Your task to perform on an android device: turn on data saver in the chrome app Image 0: 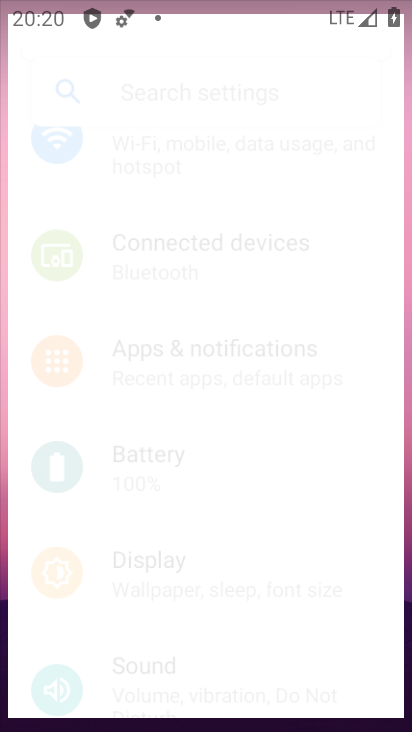
Step 0: drag from (220, 605) to (177, 190)
Your task to perform on an android device: turn on data saver in the chrome app Image 1: 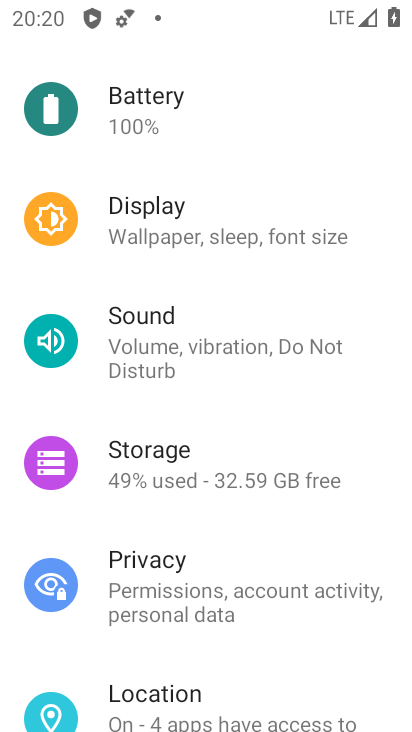
Step 1: drag from (182, 150) to (326, 699)
Your task to perform on an android device: turn on data saver in the chrome app Image 2: 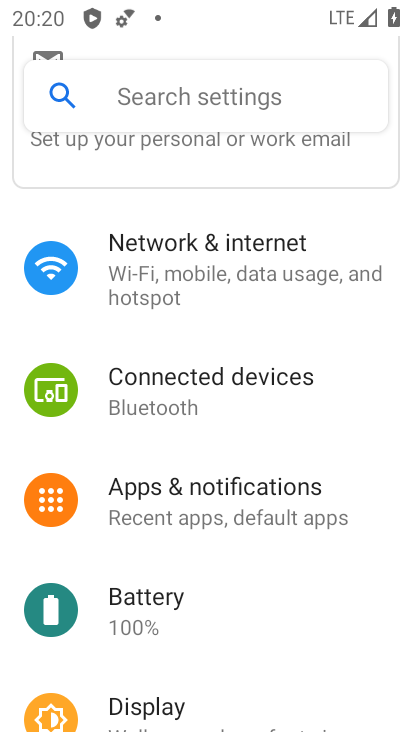
Step 2: press home button
Your task to perform on an android device: turn on data saver in the chrome app Image 3: 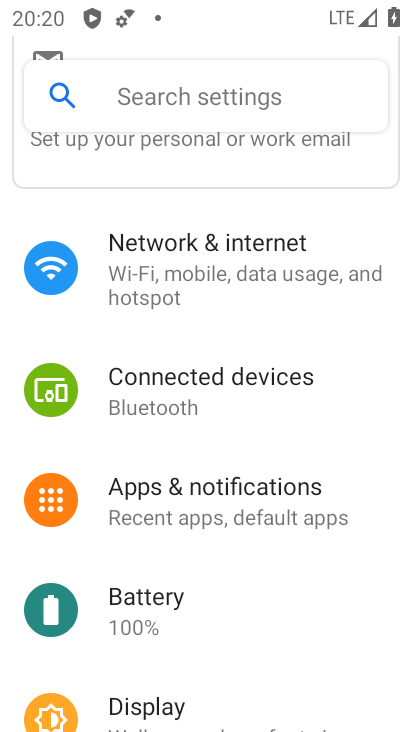
Step 3: drag from (326, 699) to (396, 564)
Your task to perform on an android device: turn on data saver in the chrome app Image 4: 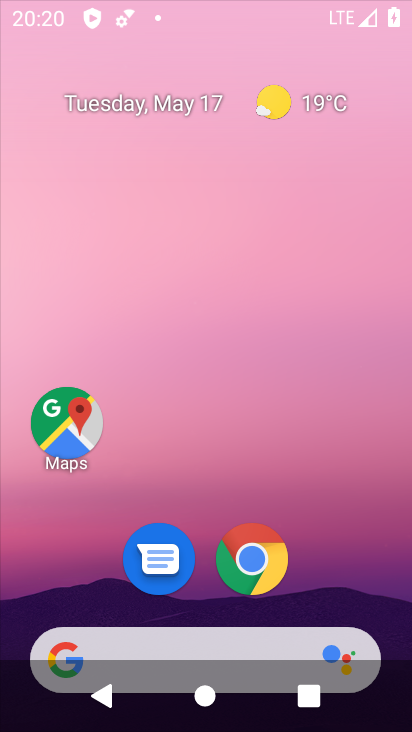
Step 4: drag from (206, 619) to (201, 146)
Your task to perform on an android device: turn on data saver in the chrome app Image 5: 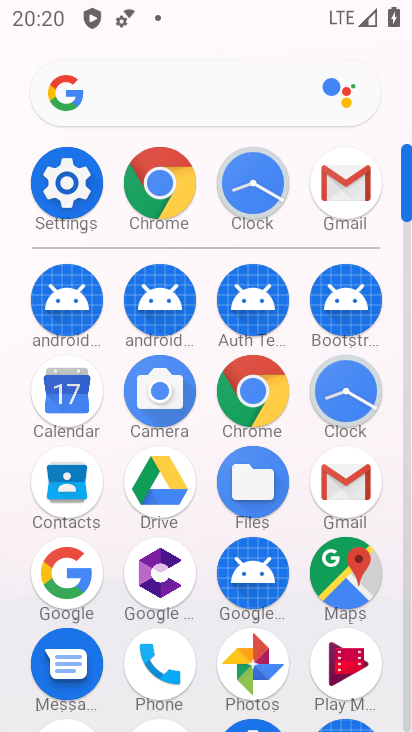
Step 5: click (170, 190)
Your task to perform on an android device: turn on data saver in the chrome app Image 6: 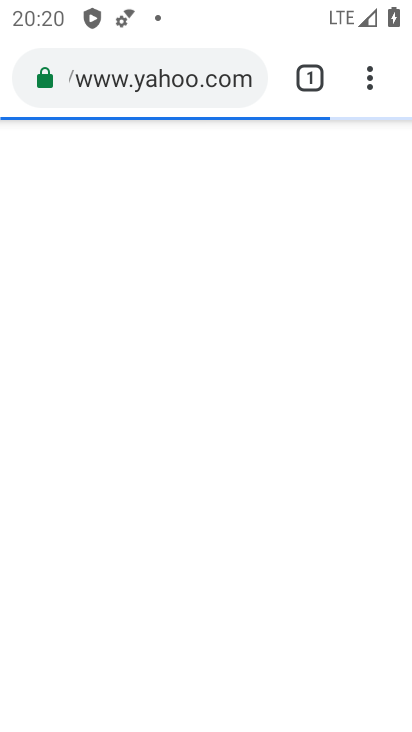
Step 6: click (365, 69)
Your task to perform on an android device: turn on data saver in the chrome app Image 7: 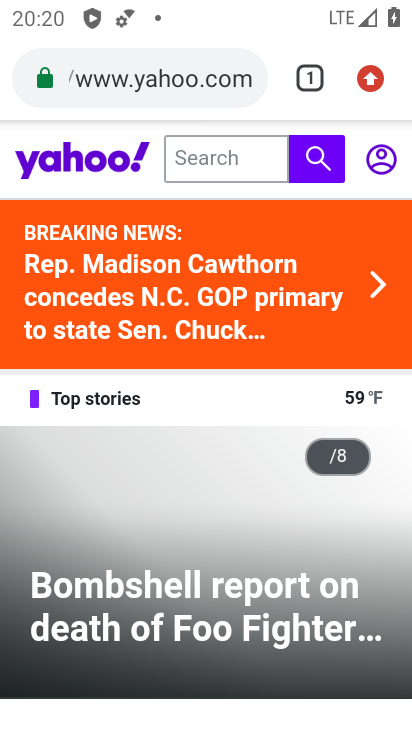
Step 7: click (365, 76)
Your task to perform on an android device: turn on data saver in the chrome app Image 8: 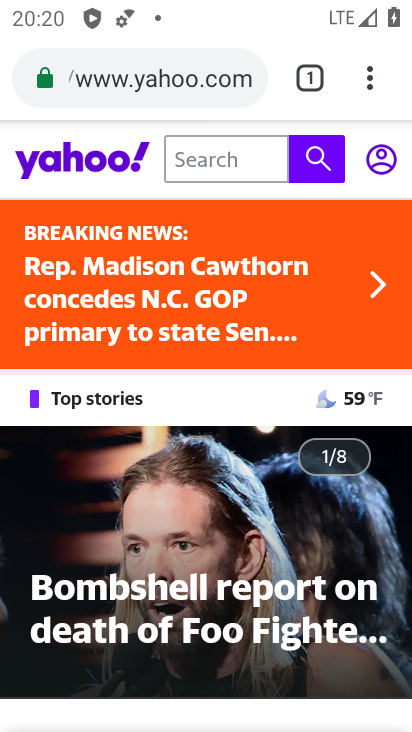
Step 8: click (365, 78)
Your task to perform on an android device: turn on data saver in the chrome app Image 9: 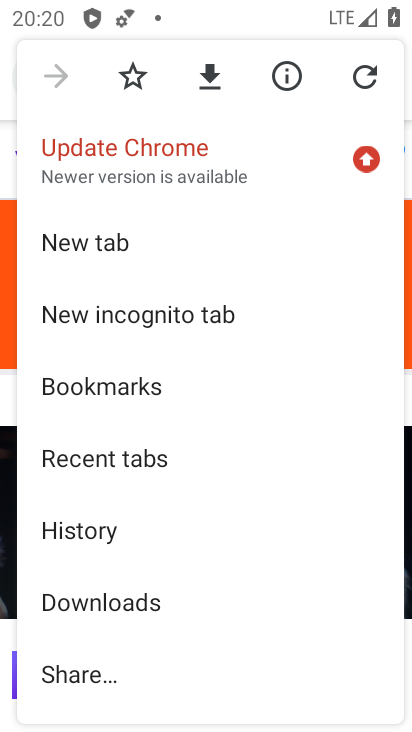
Step 9: drag from (186, 586) to (234, 176)
Your task to perform on an android device: turn on data saver in the chrome app Image 10: 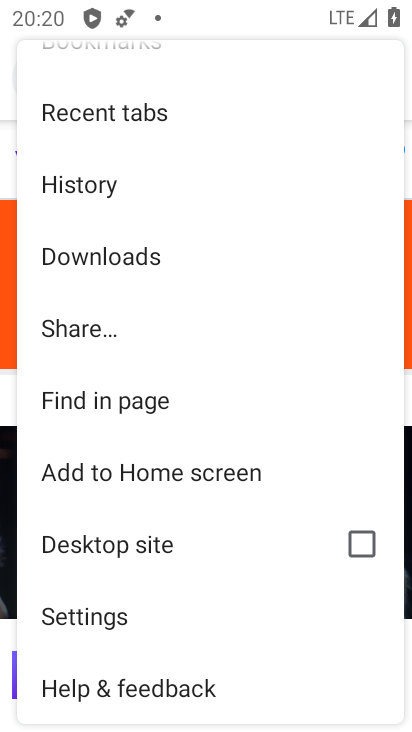
Step 10: click (127, 601)
Your task to perform on an android device: turn on data saver in the chrome app Image 11: 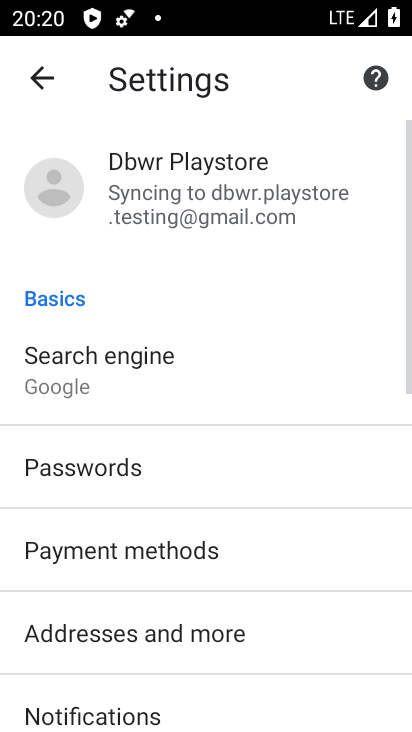
Step 11: drag from (164, 566) to (81, 22)
Your task to perform on an android device: turn on data saver in the chrome app Image 12: 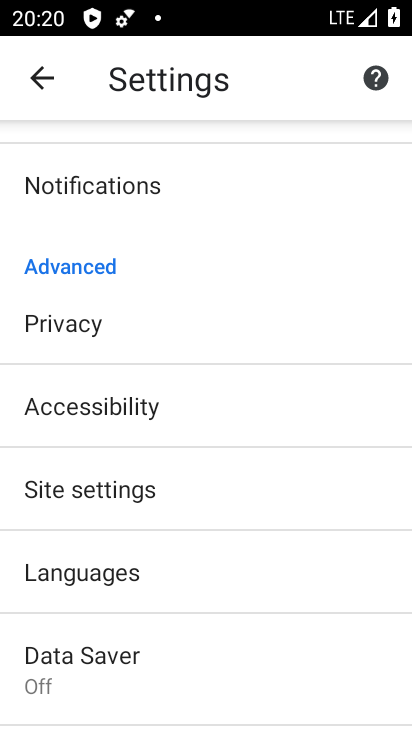
Step 12: drag from (182, 600) to (146, 290)
Your task to perform on an android device: turn on data saver in the chrome app Image 13: 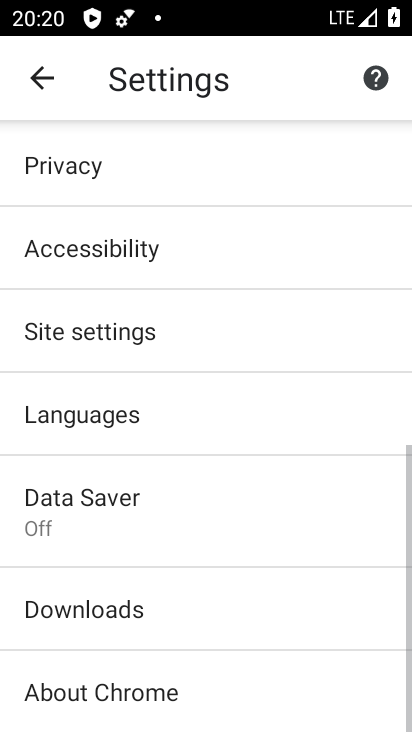
Step 13: click (100, 525)
Your task to perform on an android device: turn on data saver in the chrome app Image 14: 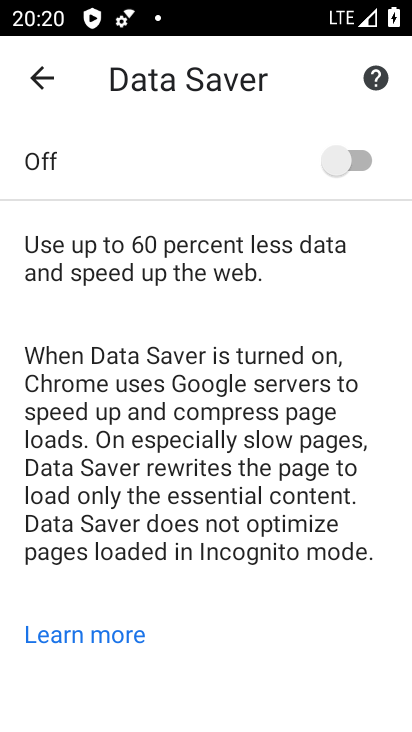
Step 14: click (347, 173)
Your task to perform on an android device: turn on data saver in the chrome app Image 15: 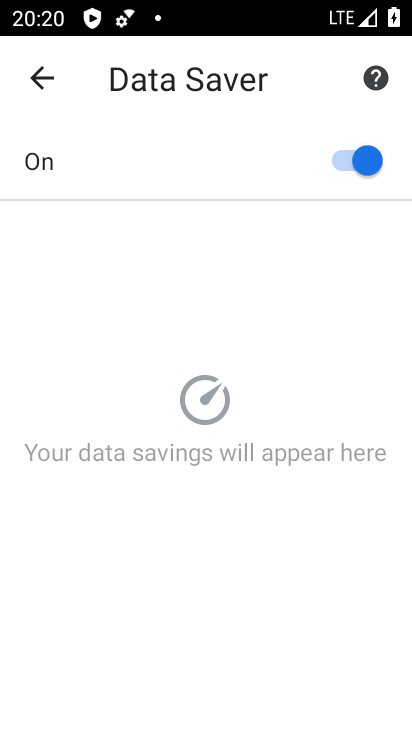
Step 15: task complete